Your task to perform on an android device: Search for razer nari on newegg, select the first entry, and add it to the cart. Image 0: 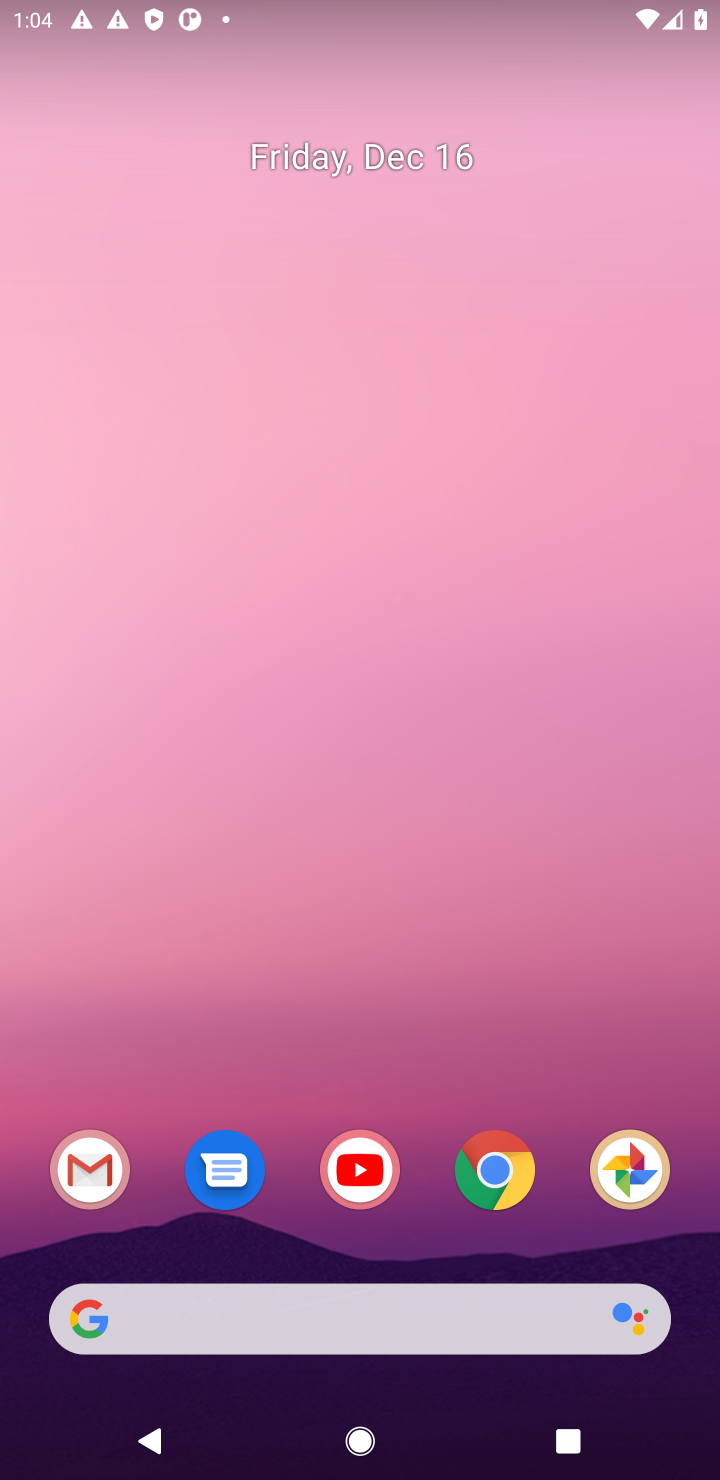
Step 0: click (490, 1178)
Your task to perform on an android device: Search for razer nari on newegg, select the first entry, and add it to the cart. Image 1: 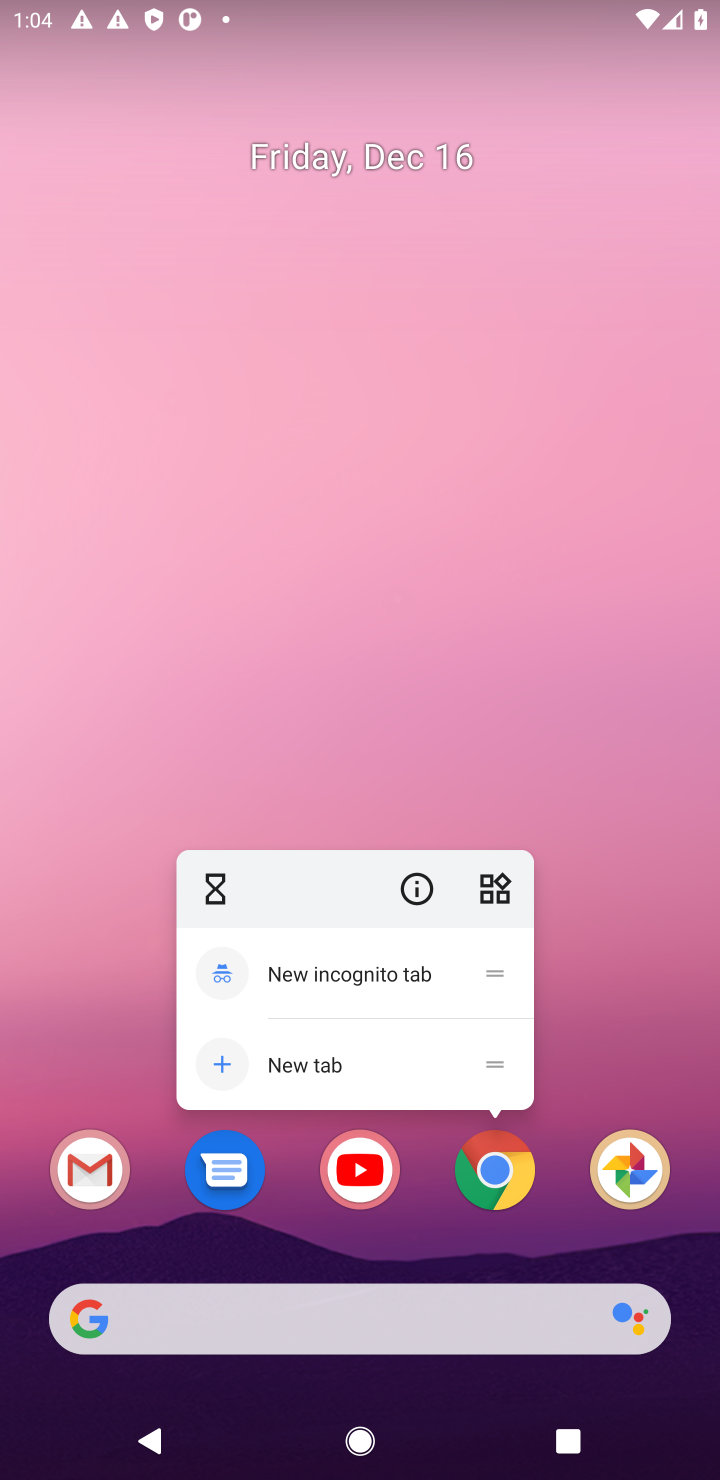
Step 1: click (490, 1178)
Your task to perform on an android device: Search for razer nari on newegg, select the first entry, and add it to the cart. Image 2: 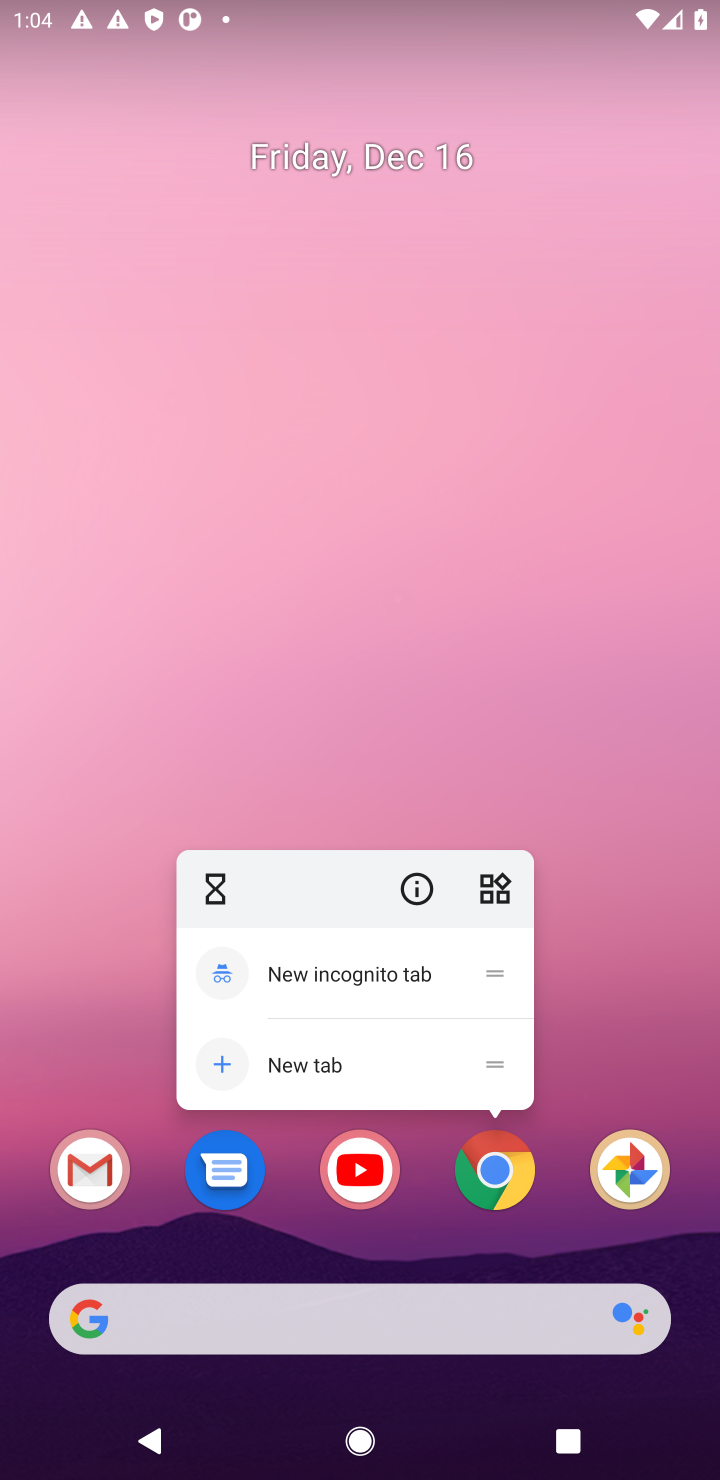
Step 2: click (490, 1178)
Your task to perform on an android device: Search for razer nari on newegg, select the first entry, and add it to the cart. Image 3: 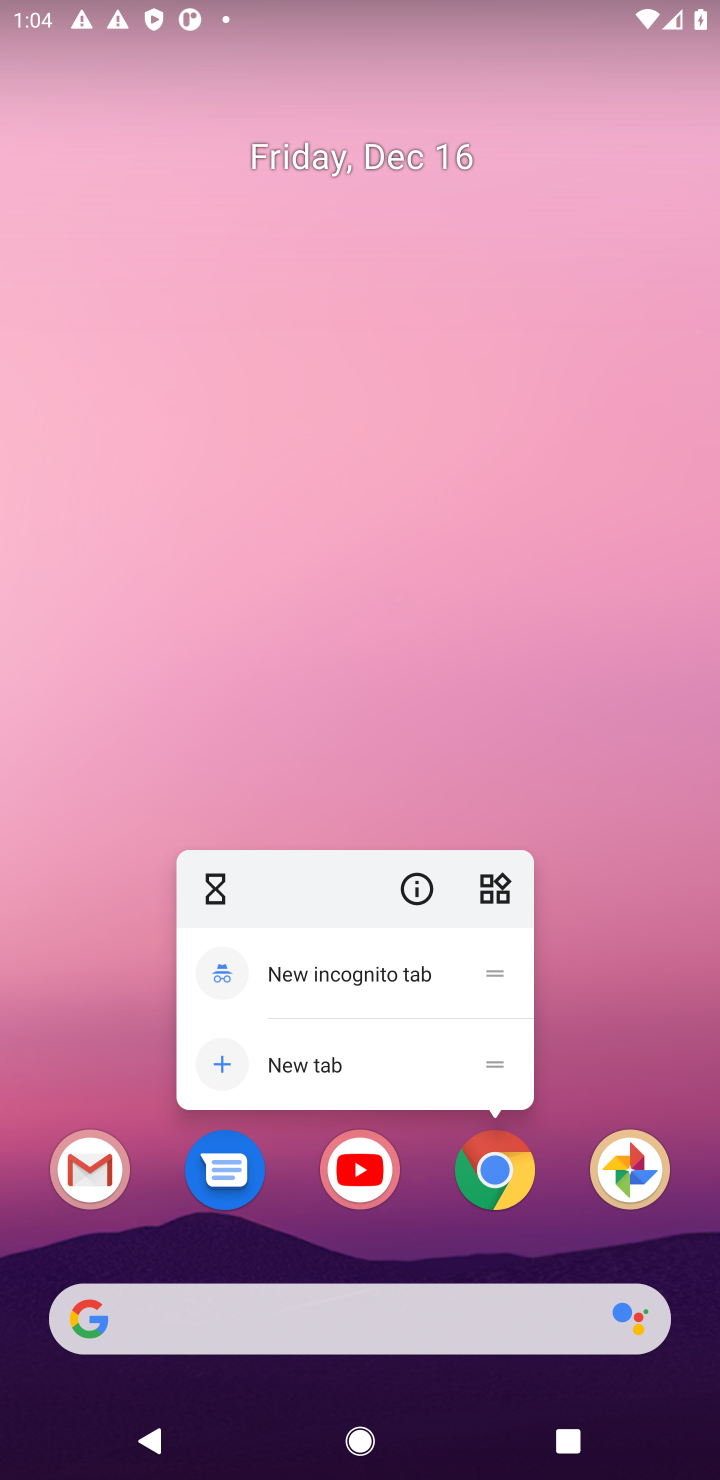
Step 3: click (496, 1176)
Your task to perform on an android device: Search for razer nari on newegg, select the first entry, and add it to the cart. Image 4: 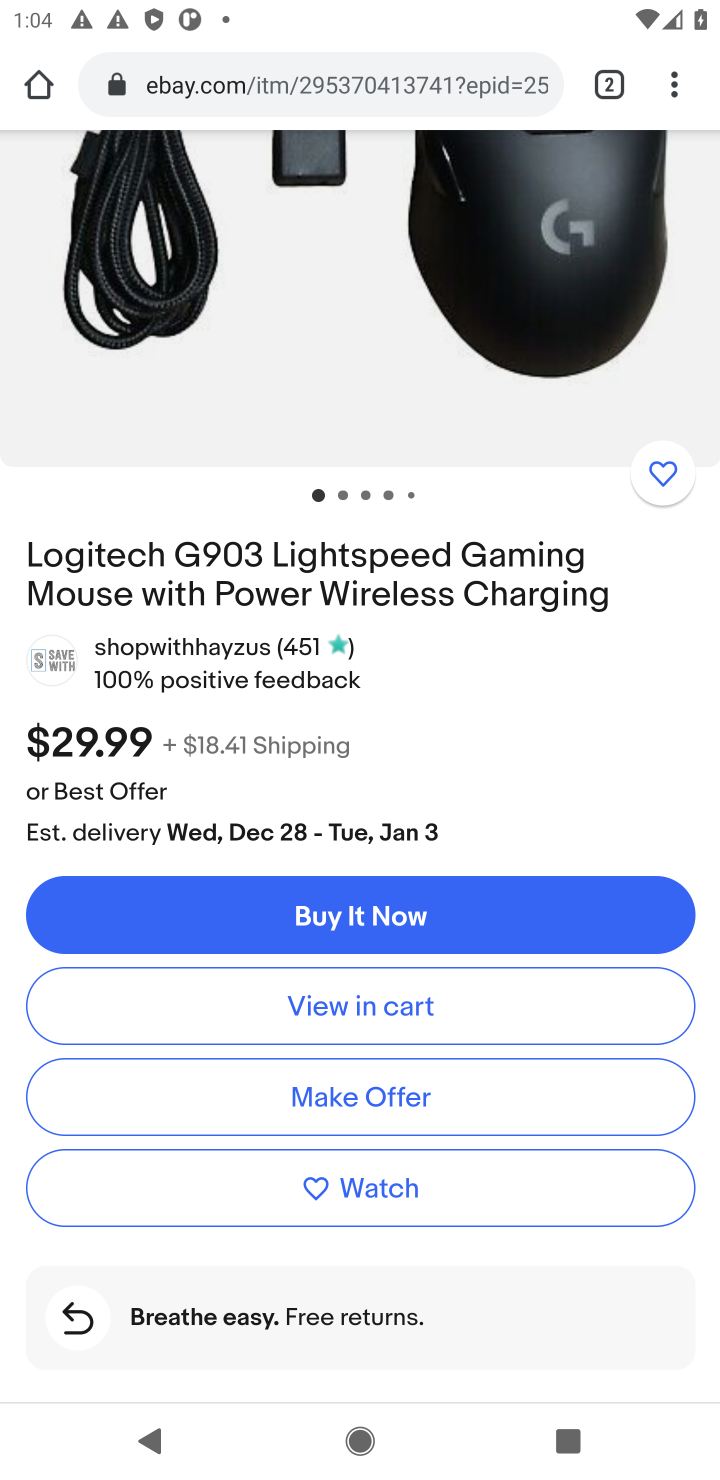
Step 4: click (264, 90)
Your task to perform on an android device: Search for razer nari on newegg, select the first entry, and add it to the cart. Image 5: 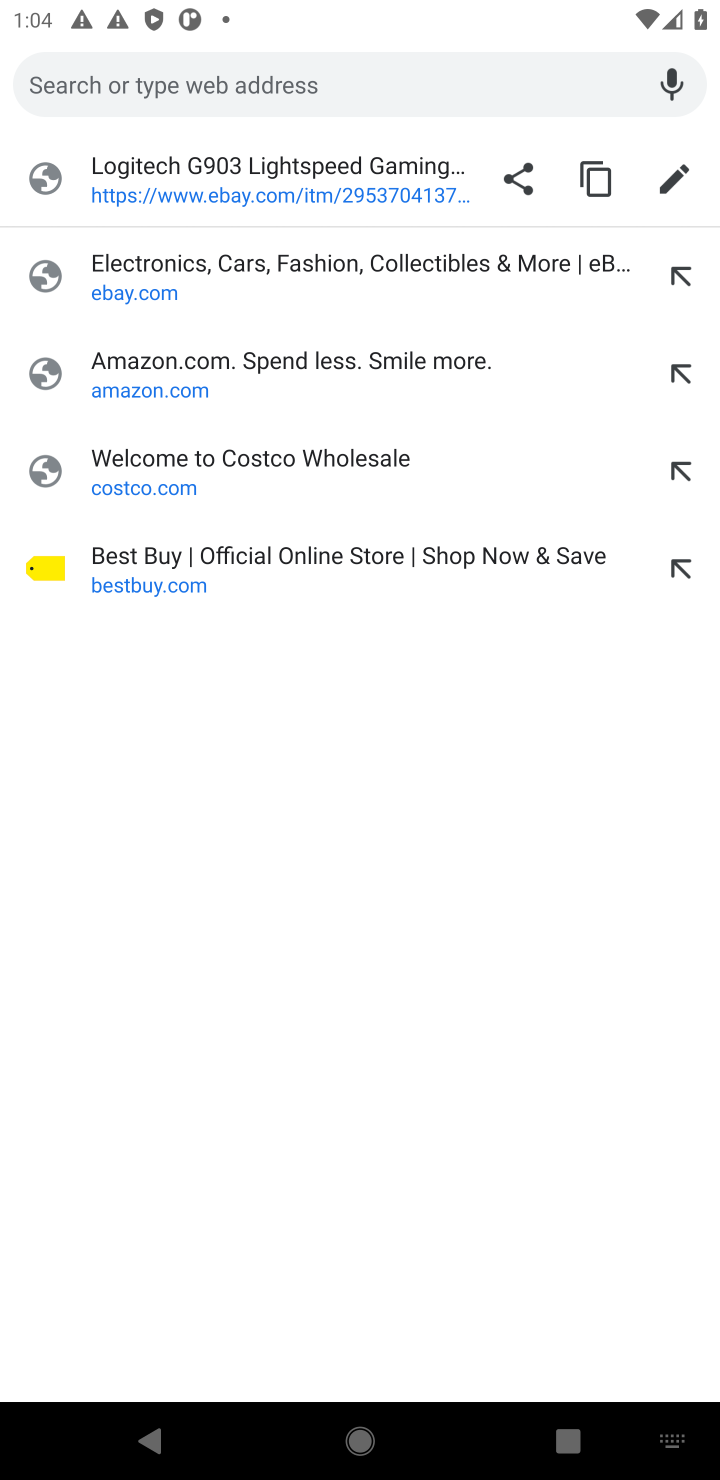
Step 5: type "newegg.com"
Your task to perform on an android device: Search for razer nari on newegg, select the first entry, and add it to the cart. Image 6: 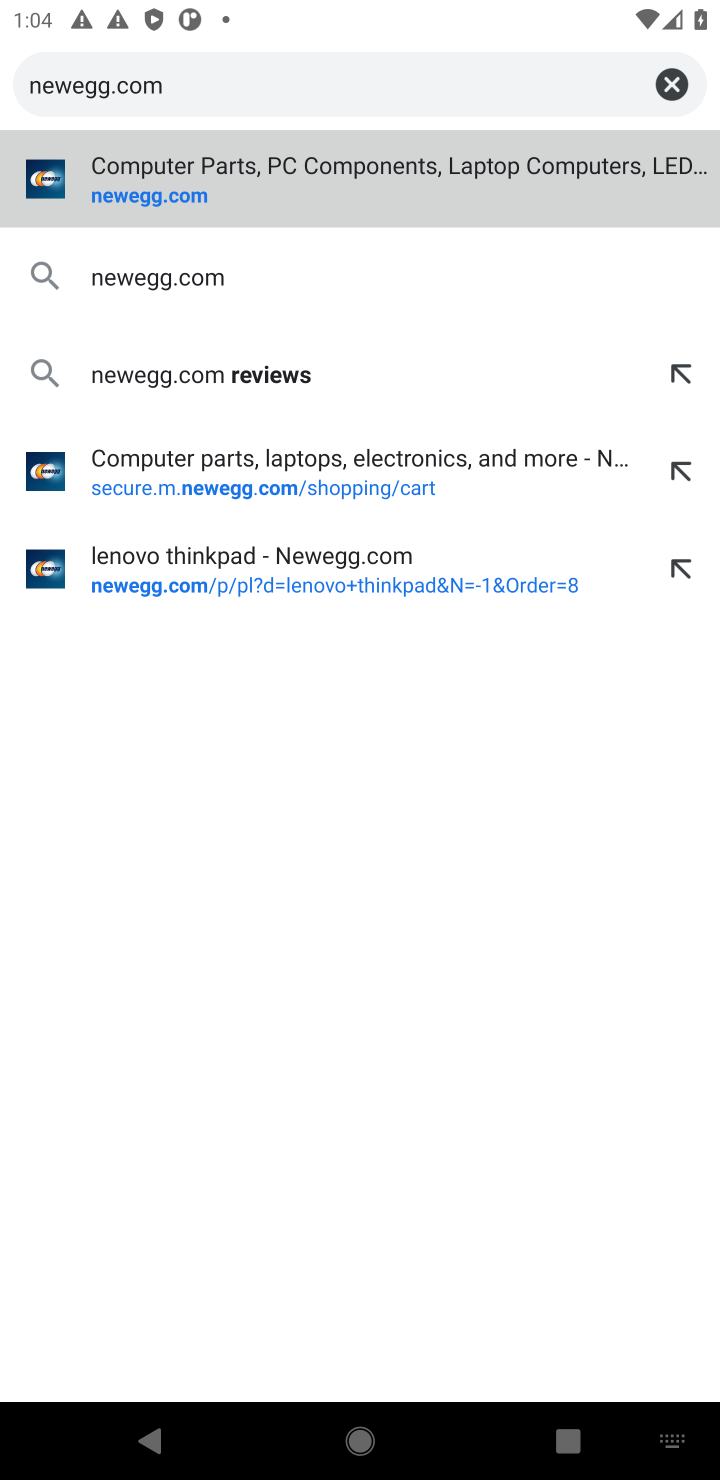
Step 6: click (185, 196)
Your task to perform on an android device: Search for razer nari on newegg, select the first entry, and add it to the cart. Image 7: 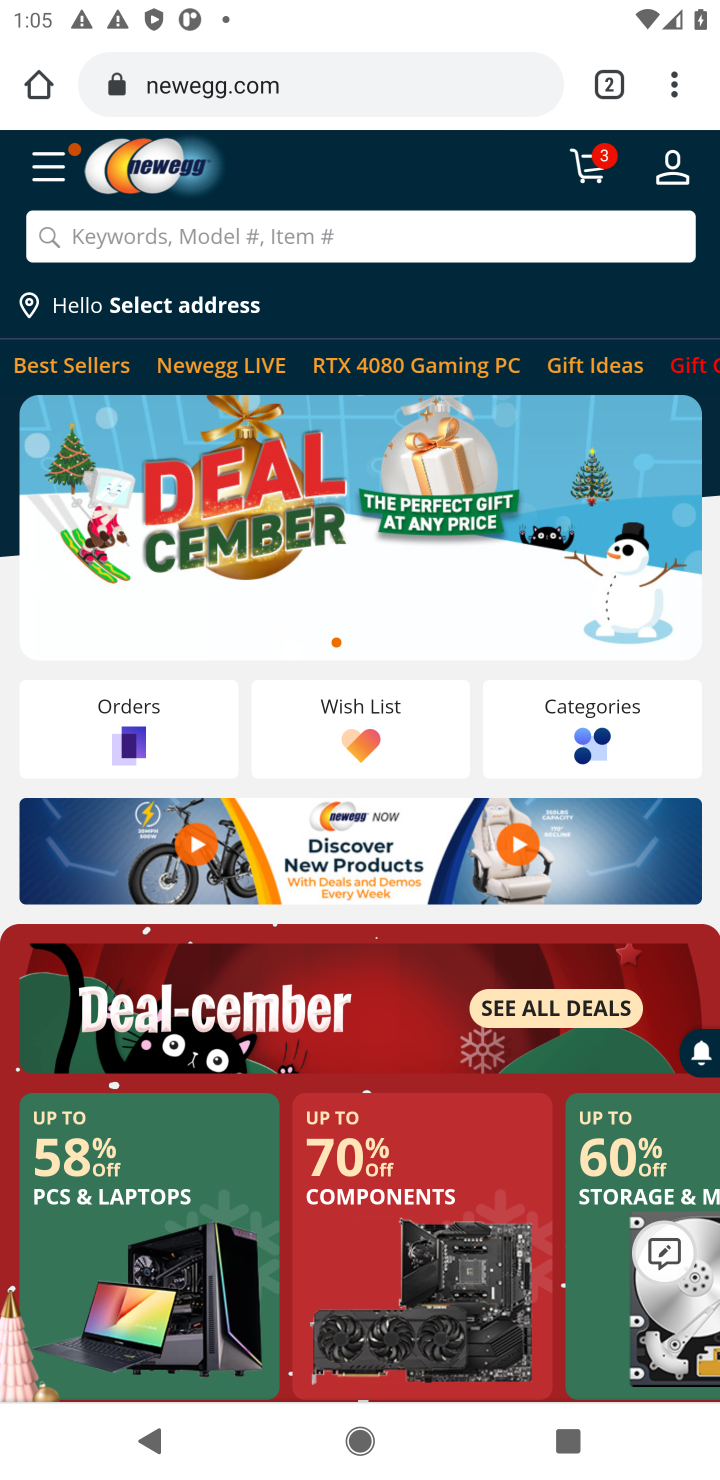
Step 7: click (117, 247)
Your task to perform on an android device: Search for razer nari on newegg, select the first entry, and add it to the cart. Image 8: 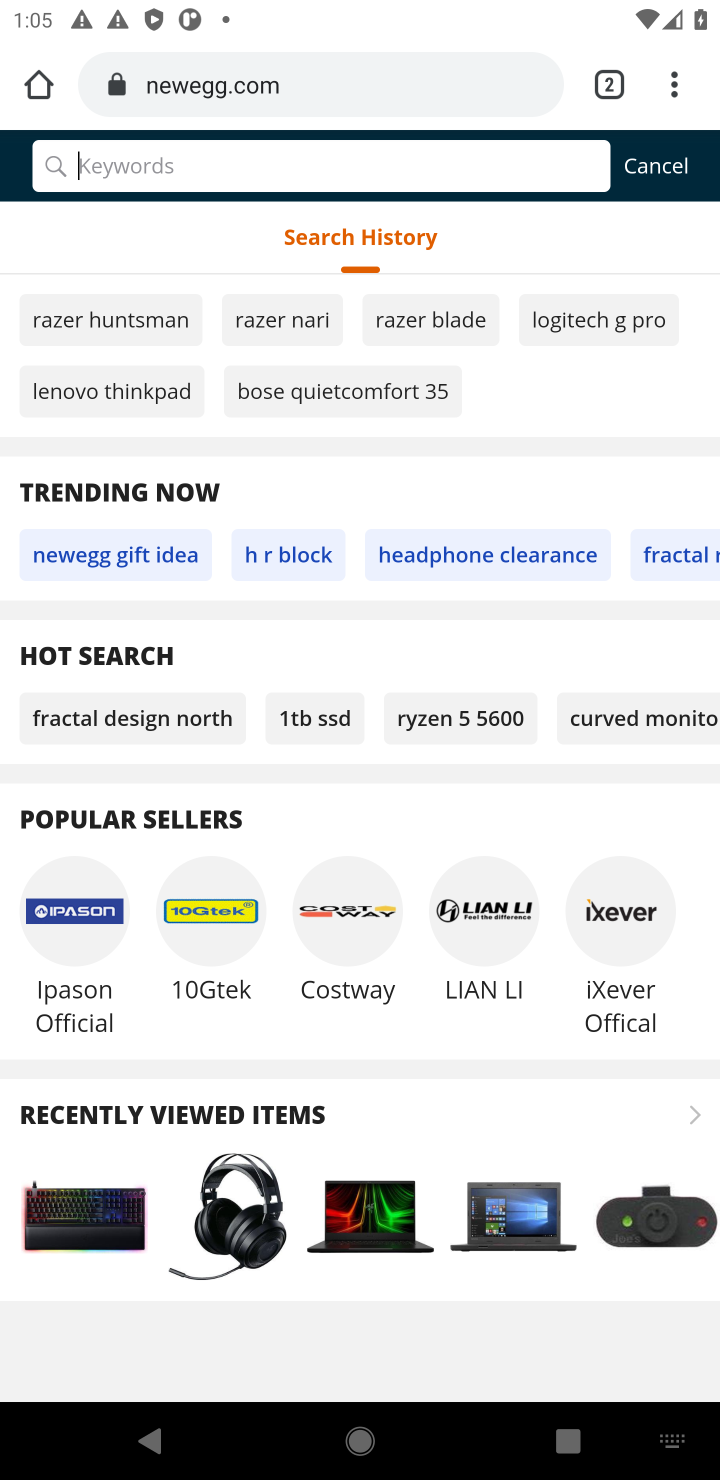
Step 8: type "razer nari "
Your task to perform on an android device: Search for razer nari on newegg, select the first entry, and add it to the cart. Image 9: 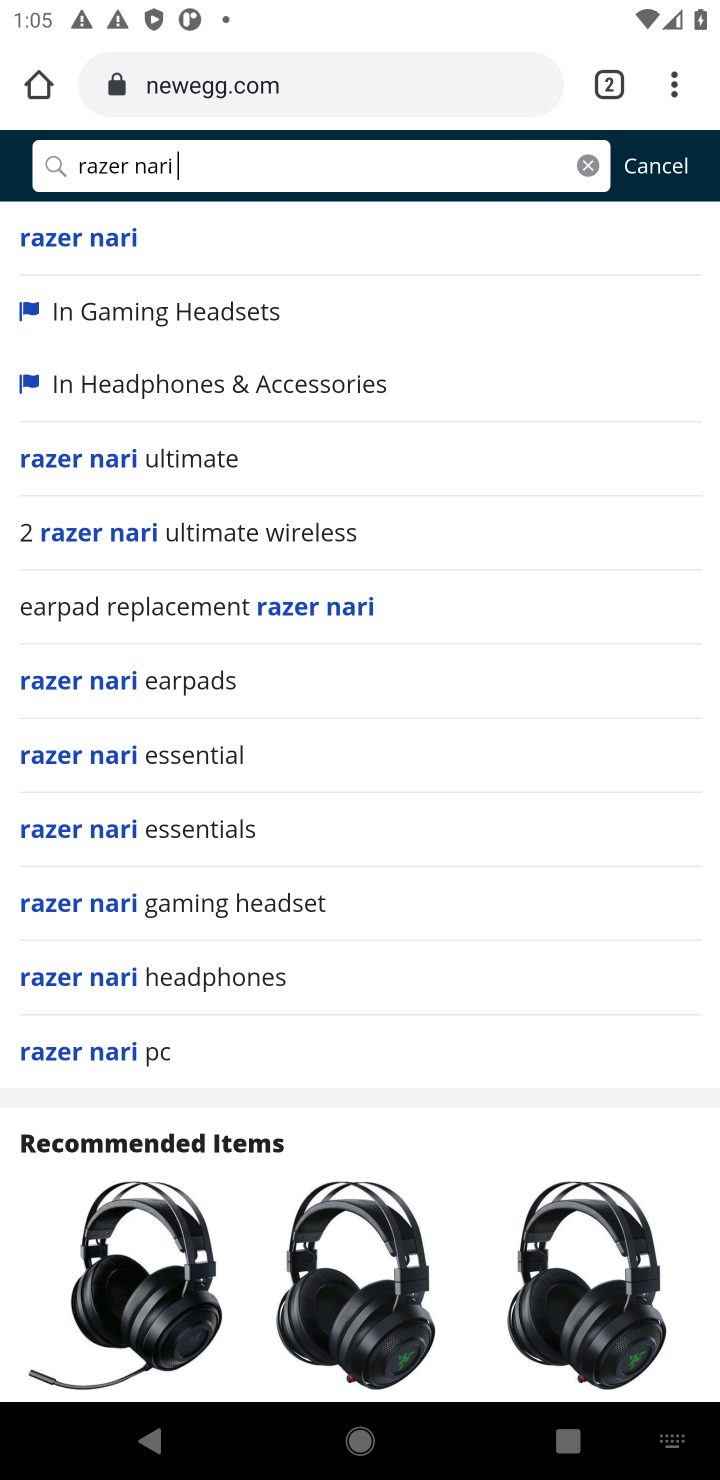
Step 9: click (49, 242)
Your task to perform on an android device: Search for razer nari on newegg, select the first entry, and add it to the cart. Image 10: 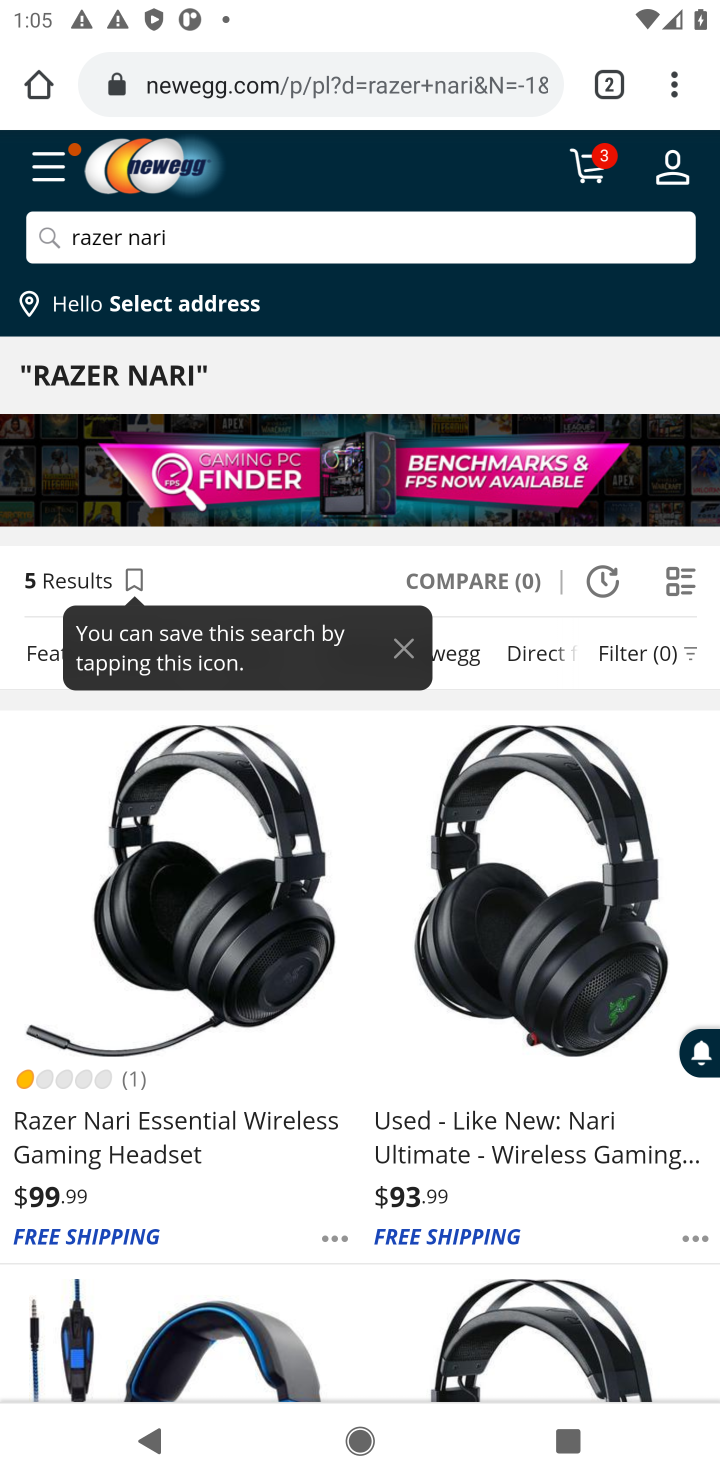
Step 10: click (82, 1160)
Your task to perform on an android device: Search for razer nari on newegg, select the first entry, and add it to the cart. Image 11: 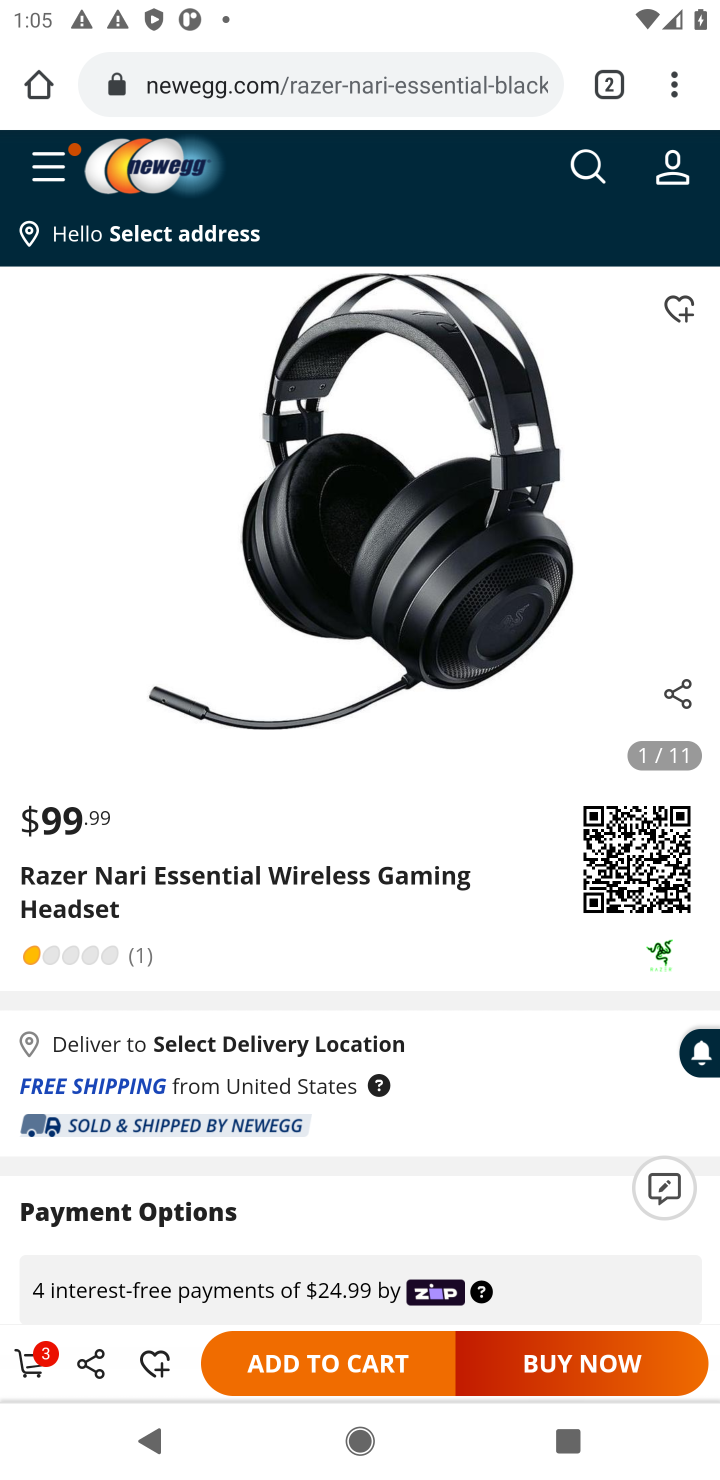
Step 11: click (329, 1366)
Your task to perform on an android device: Search for razer nari on newegg, select the first entry, and add it to the cart. Image 12: 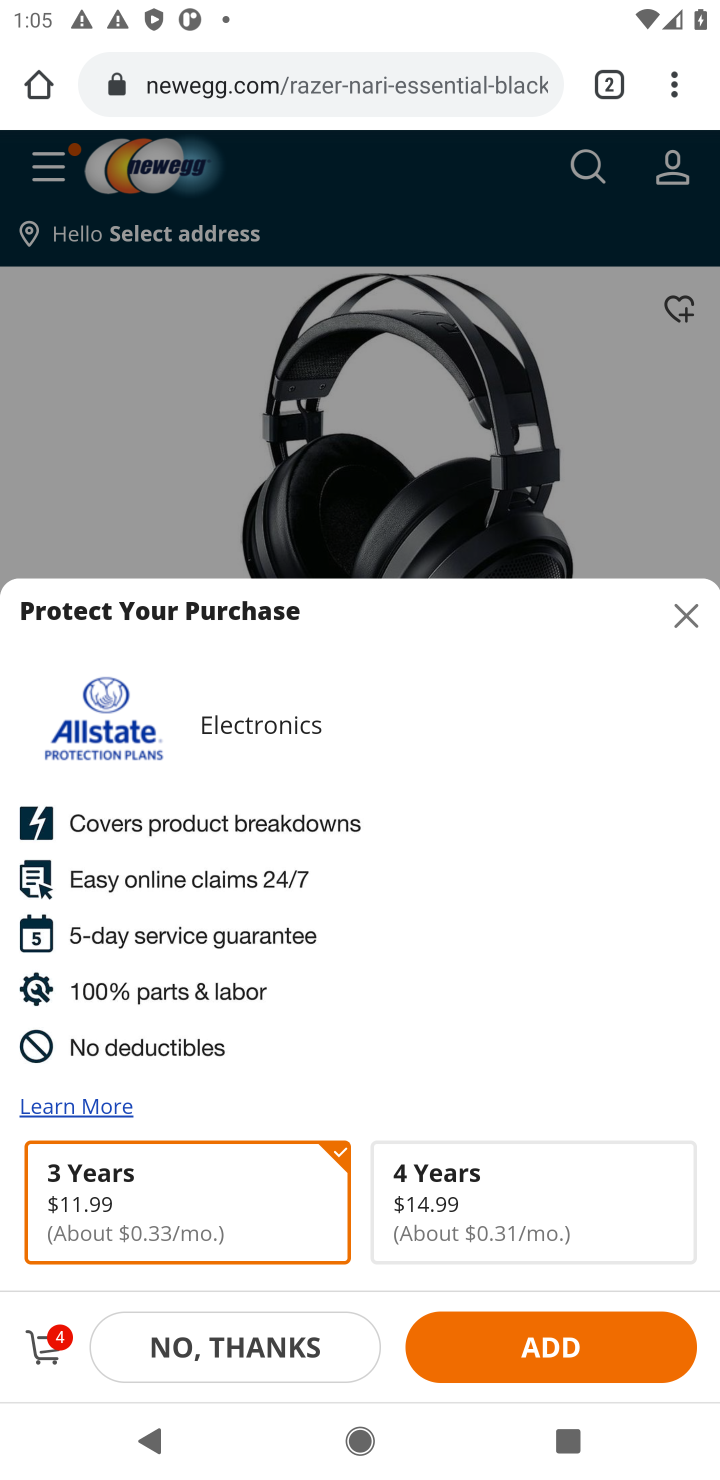
Step 12: task complete